Your task to perform on an android device: Search for flights from NYC to Barcelona Image 0: 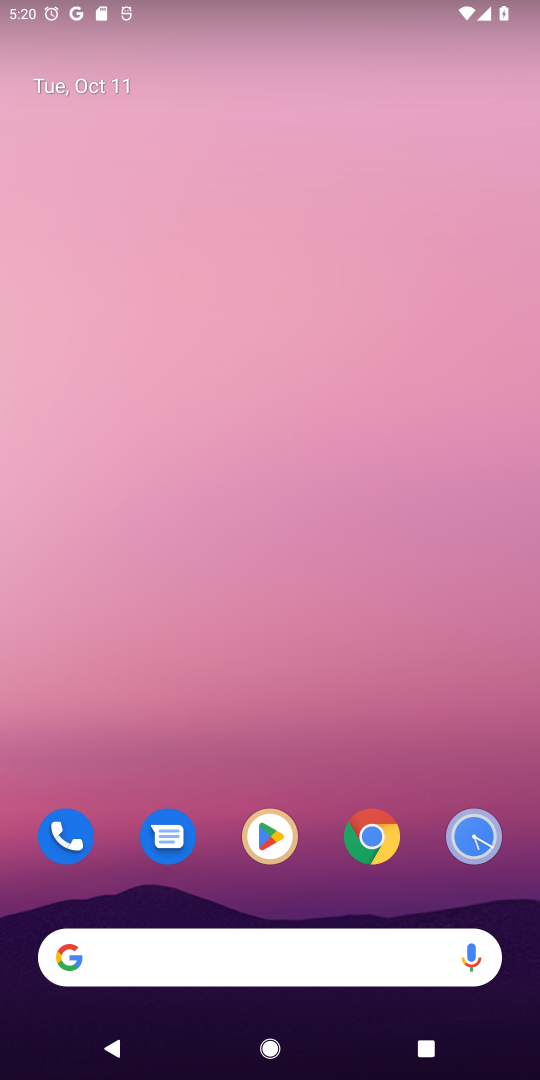
Step 0: click (294, 964)
Your task to perform on an android device: Search for flights from NYC to Barcelona Image 1: 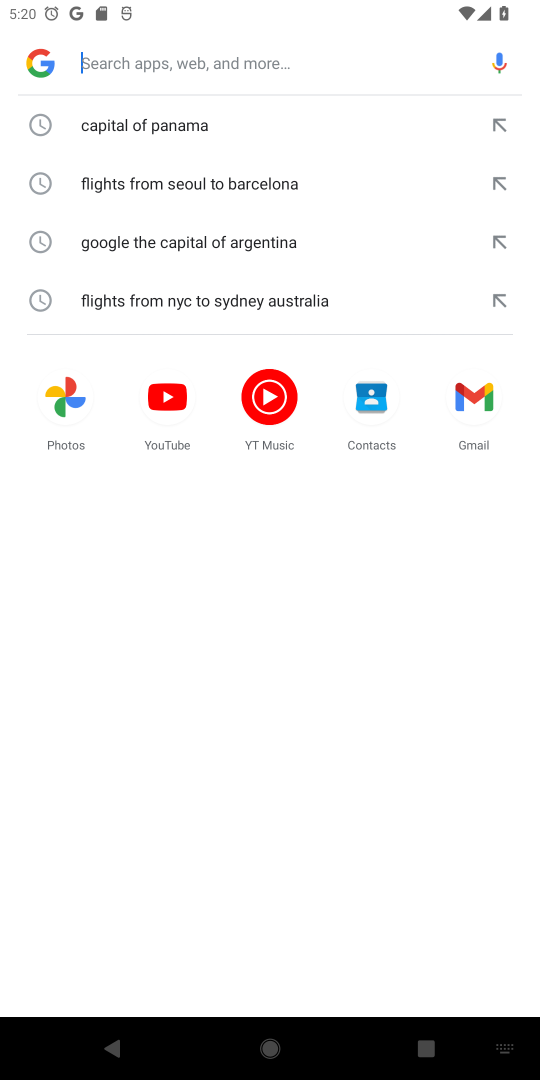
Step 1: type " flights from NYC to Barcelona"
Your task to perform on an android device: Search for flights from NYC to Barcelona Image 2: 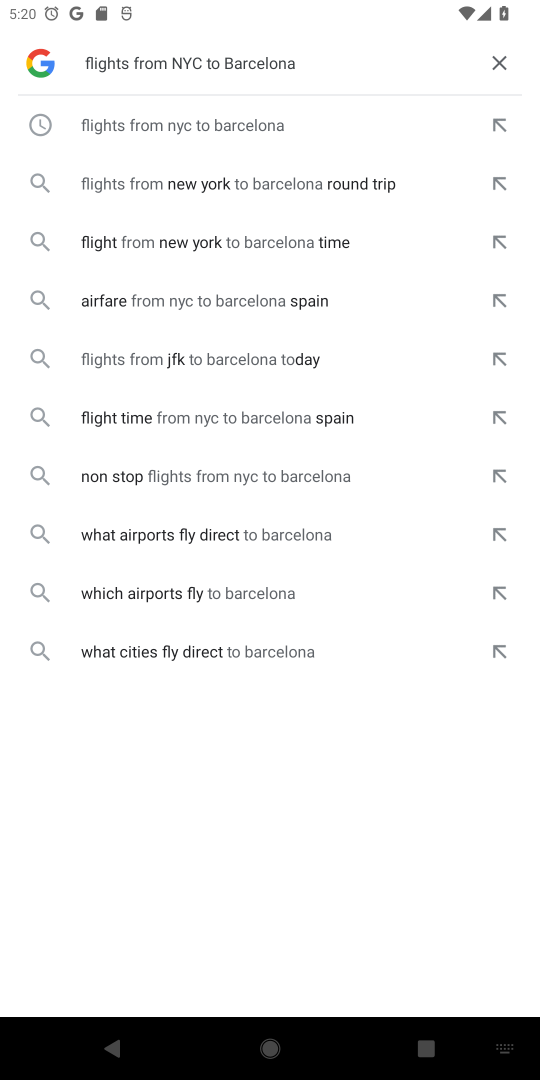
Step 2: click (278, 142)
Your task to perform on an android device: Search for flights from NYC to Barcelona Image 3: 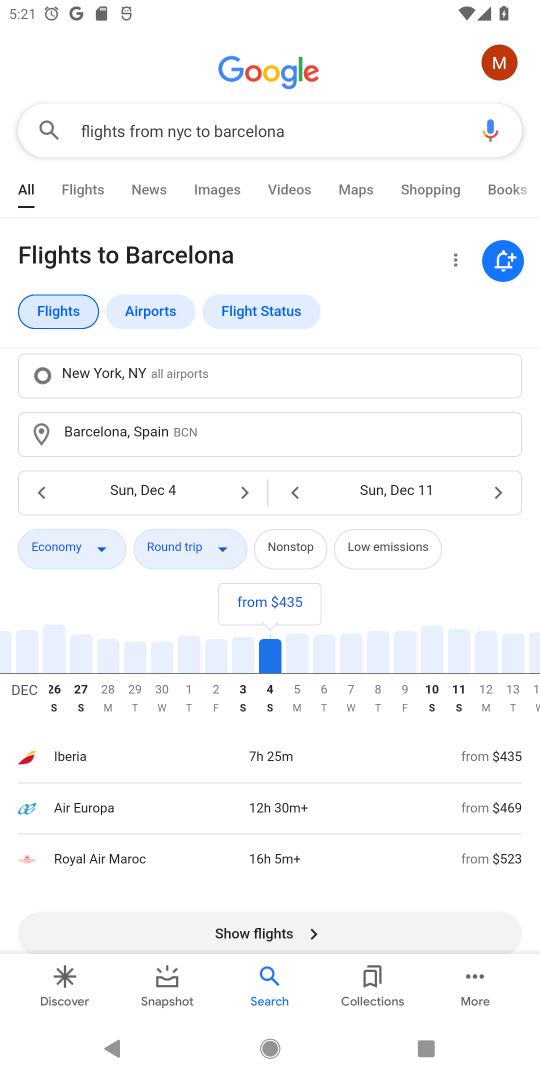
Step 3: task complete